Your task to perform on an android device: Toggle the flashlight Image 0: 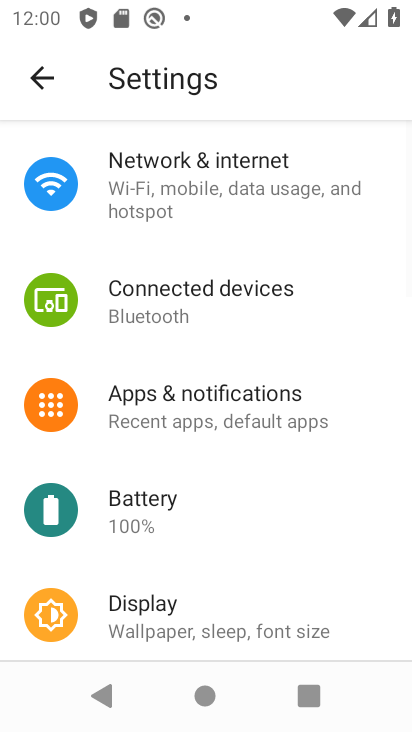
Step 0: click (34, 78)
Your task to perform on an android device: Toggle the flashlight Image 1: 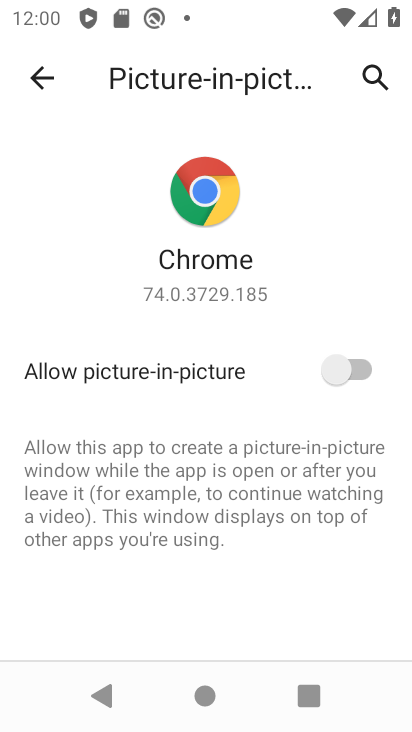
Step 1: click (32, 75)
Your task to perform on an android device: Toggle the flashlight Image 2: 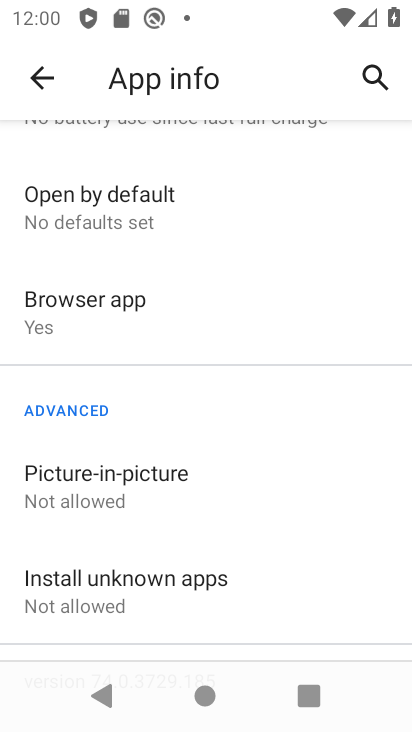
Step 2: click (20, 57)
Your task to perform on an android device: Toggle the flashlight Image 3: 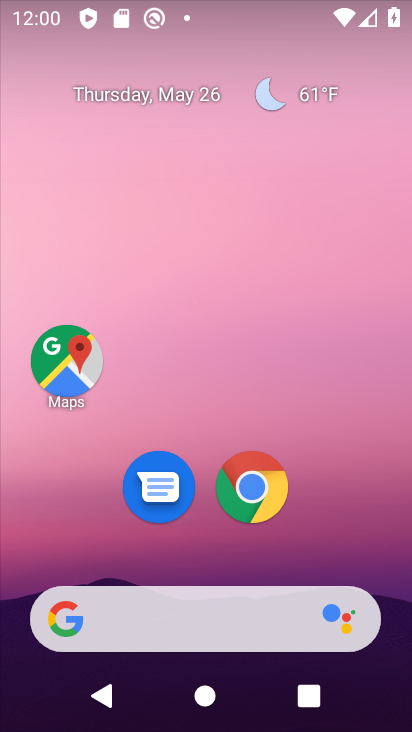
Step 3: task complete